Your task to perform on an android device: Look up the best rated drill on Lowes. Image 0: 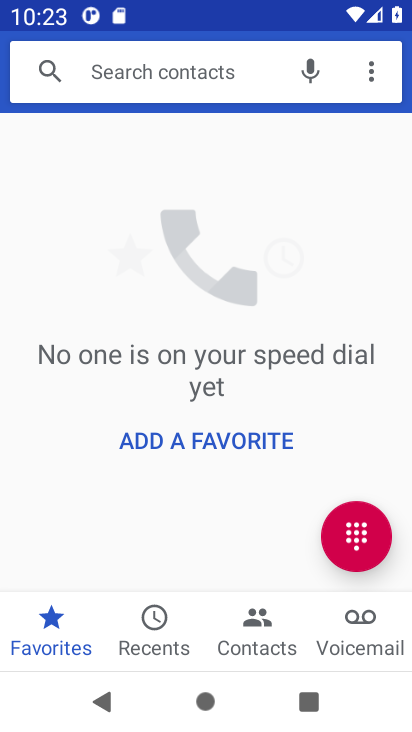
Step 0: press home button
Your task to perform on an android device: Look up the best rated drill on Lowes. Image 1: 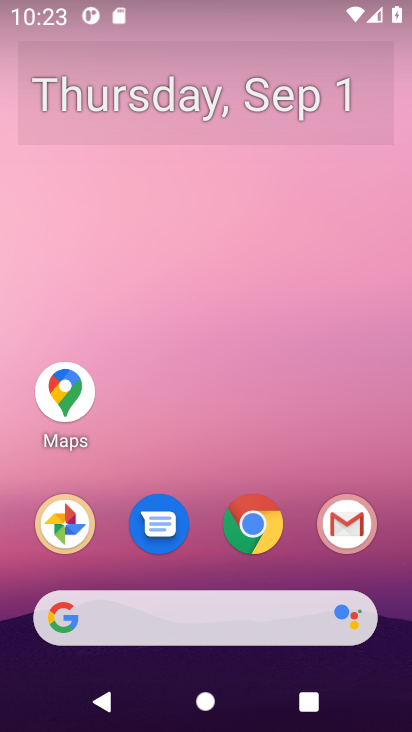
Step 1: drag from (378, 328) to (377, 79)
Your task to perform on an android device: Look up the best rated drill on Lowes. Image 2: 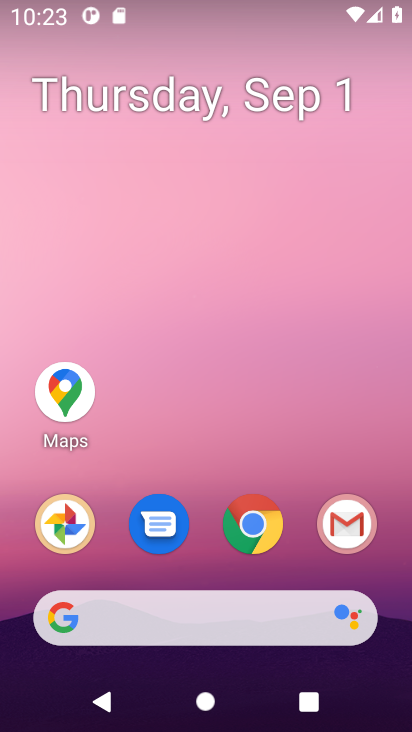
Step 2: click (211, 620)
Your task to perform on an android device: Look up the best rated drill on Lowes. Image 3: 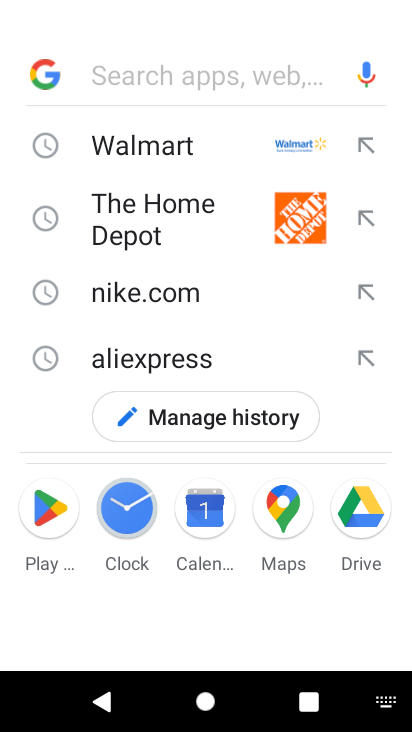
Step 3: click (167, 65)
Your task to perform on an android device: Look up the best rated drill on Lowes. Image 4: 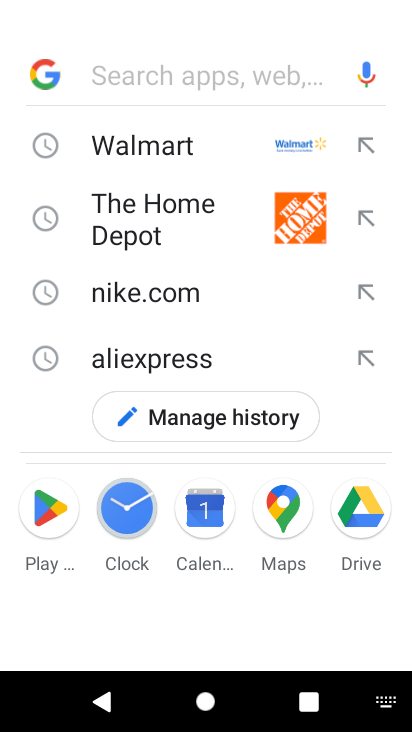
Step 4: press enter
Your task to perform on an android device: Look up the best rated drill on Lowes. Image 5: 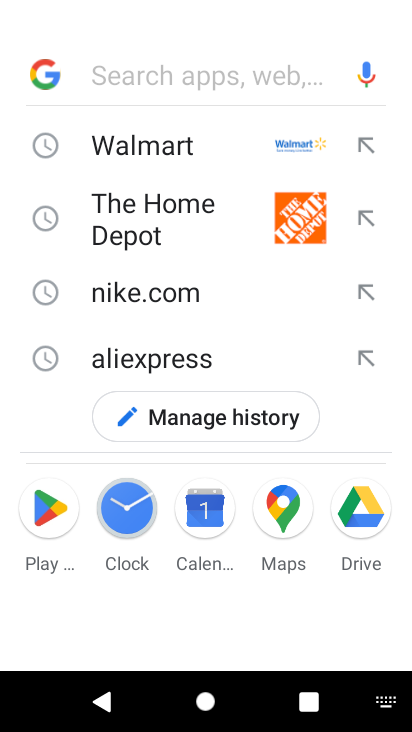
Step 5: type "lowes"
Your task to perform on an android device: Look up the best rated drill on Lowes. Image 6: 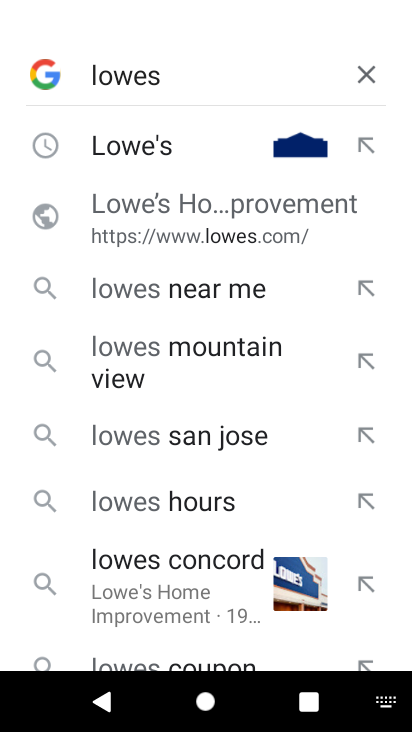
Step 6: click (123, 149)
Your task to perform on an android device: Look up the best rated drill on Lowes. Image 7: 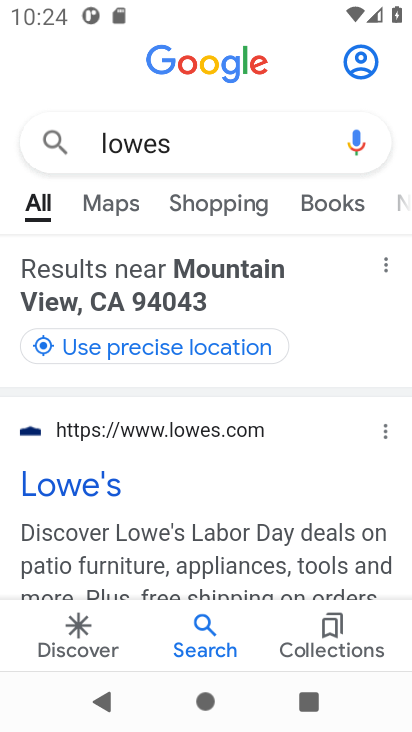
Step 7: click (80, 487)
Your task to perform on an android device: Look up the best rated drill on Lowes. Image 8: 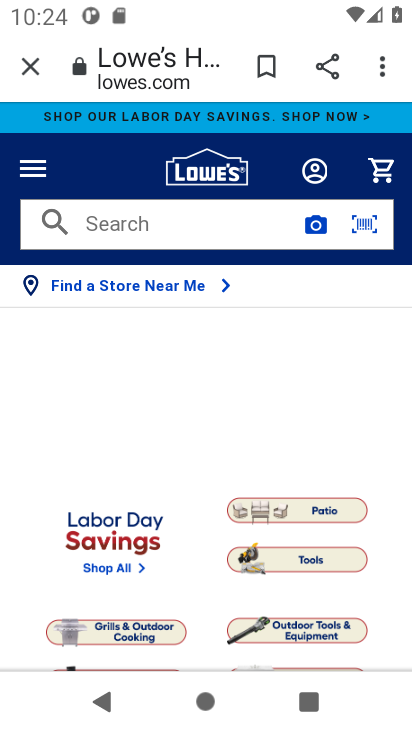
Step 8: click (135, 220)
Your task to perform on an android device: Look up the best rated drill on Lowes. Image 9: 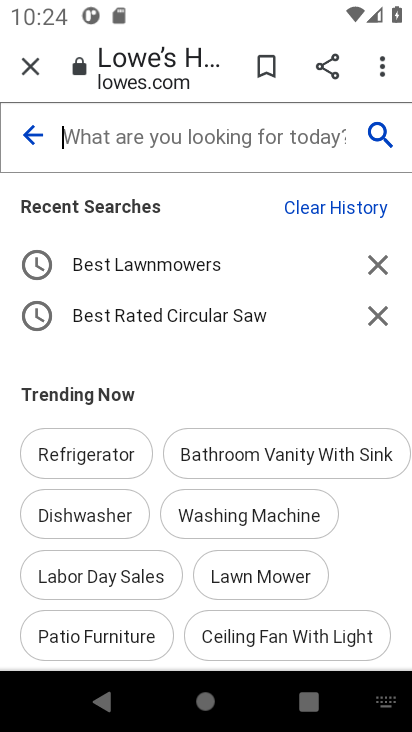
Step 9: press enter
Your task to perform on an android device: Look up the best rated drill on Lowes. Image 10: 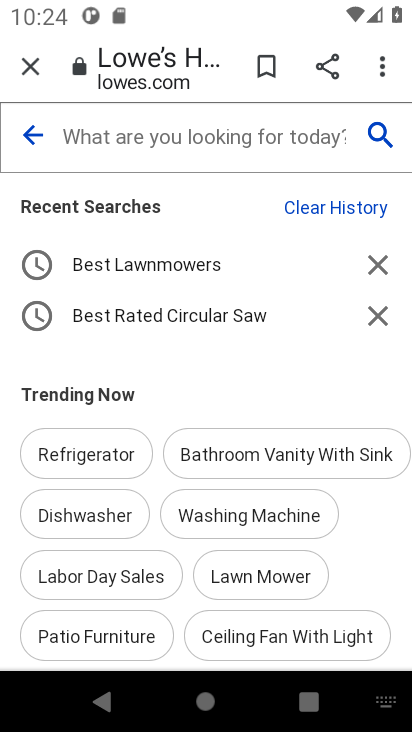
Step 10: type " best rated drill "
Your task to perform on an android device: Look up the best rated drill on Lowes. Image 11: 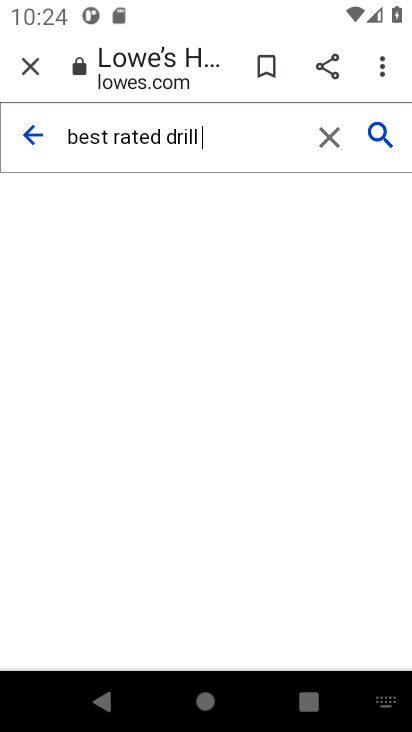
Step 11: click (374, 133)
Your task to perform on an android device: Look up the best rated drill on Lowes. Image 12: 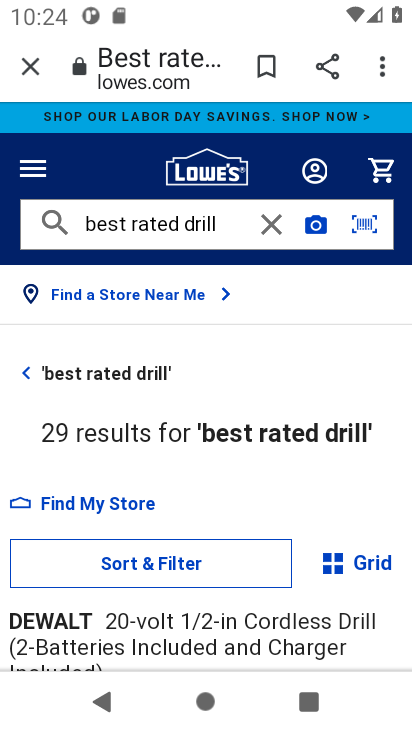
Step 12: task complete